Your task to perform on an android device: How much does a 3 bedroom apartment rent for in Seattle? Image 0: 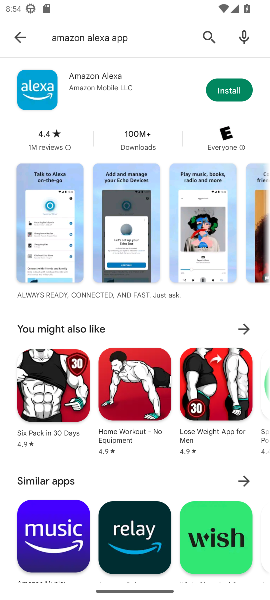
Step 0: press home button
Your task to perform on an android device: How much does a 3 bedroom apartment rent for in Seattle? Image 1: 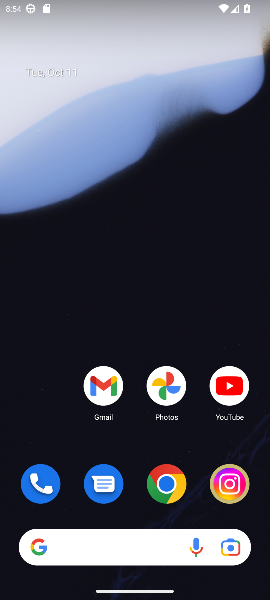
Step 1: click (168, 485)
Your task to perform on an android device: How much does a 3 bedroom apartment rent for in Seattle? Image 2: 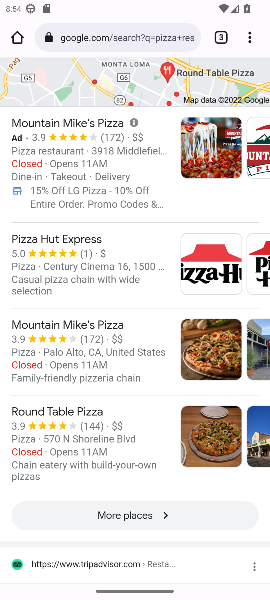
Step 2: click (118, 37)
Your task to perform on an android device: How much does a 3 bedroom apartment rent for in Seattle? Image 3: 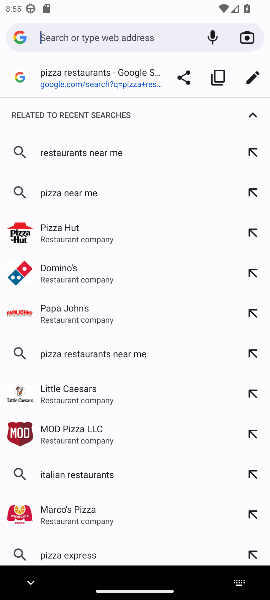
Step 3: type "3 bedroom apartment rent for in Seattle"
Your task to perform on an android device: How much does a 3 bedroom apartment rent for in Seattle? Image 4: 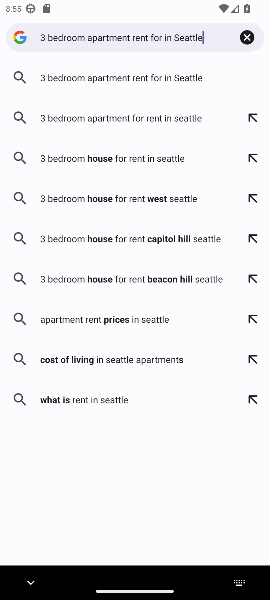
Step 4: click (89, 73)
Your task to perform on an android device: How much does a 3 bedroom apartment rent for in Seattle? Image 5: 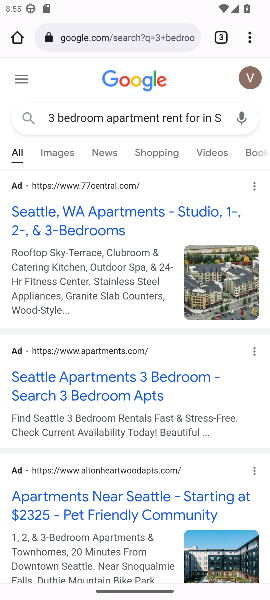
Step 5: drag from (146, 487) to (254, 299)
Your task to perform on an android device: How much does a 3 bedroom apartment rent for in Seattle? Image 6: 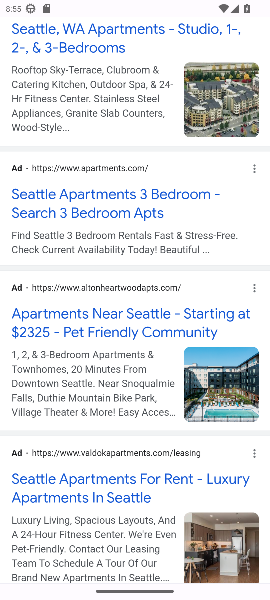
Step 6: drag from (75, 449) to (138, 309)
Your task to perform on an android device: How much does a 3 bedroom apartment rent for in Seattle? Image 7: 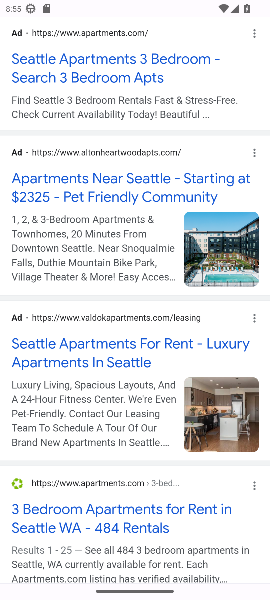
Step 7: click (109, 512)
Your task to perform on an android device: How much does a 3 bedroom apartment rent for in Seattle? Image 8: 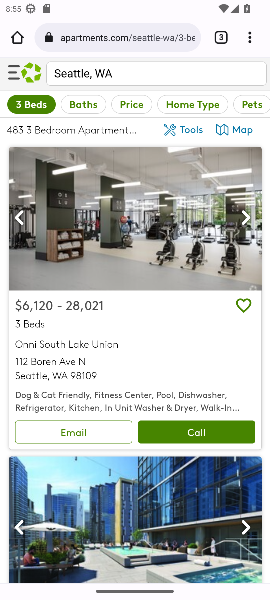
Step 8: task complete